Your task to perform on an android device: Open calendar and show me the second week of next month Image 0: 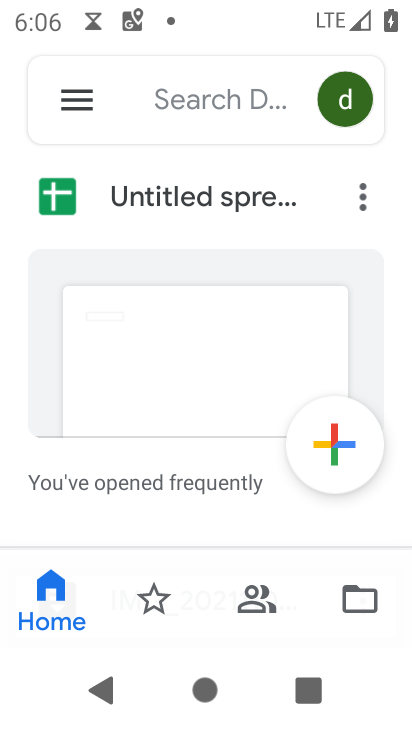
Step 0: press home button
Your task to perform on an android device: Open calendar and show me the second week of next month Image 1: 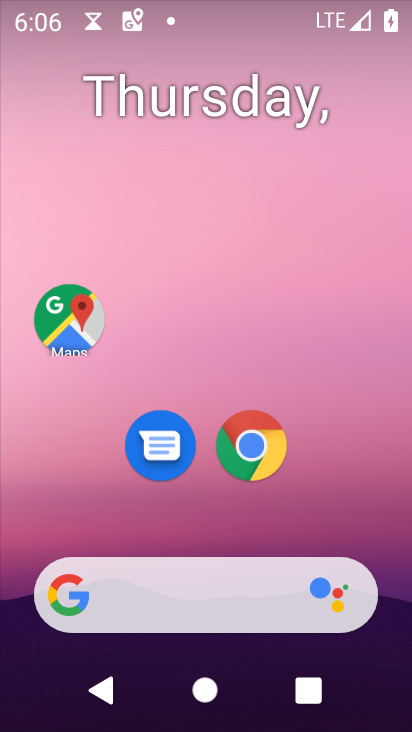
Step 1: drag from (229, 515) to (260, 88)
Your task to perform on an android device: Open calendar and show me the second week of next month Image 2: 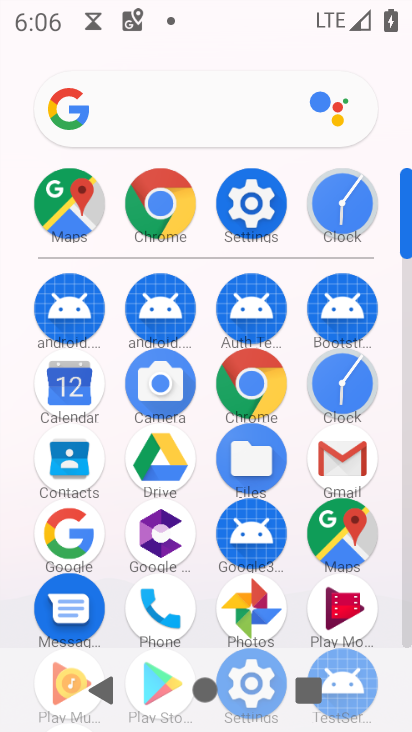
Step 2: click (63, 379)
Your task to perform on an android device: Open calendar and show me the second week of next month Image 3: 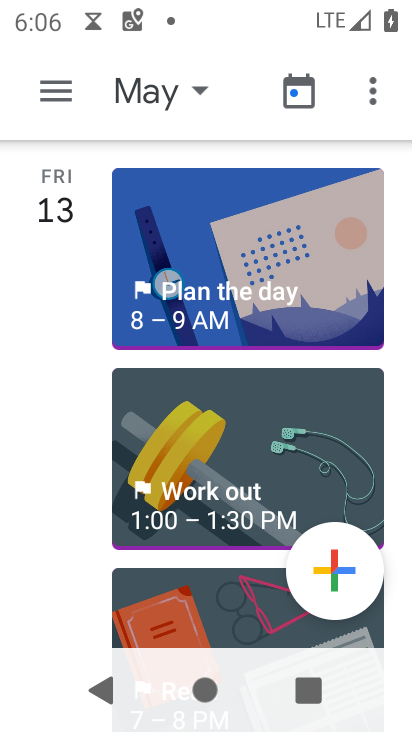
Step 3: click (176, 101)
Your task to perform on an android device: Open calendar and show me the second week of next month Image 4: 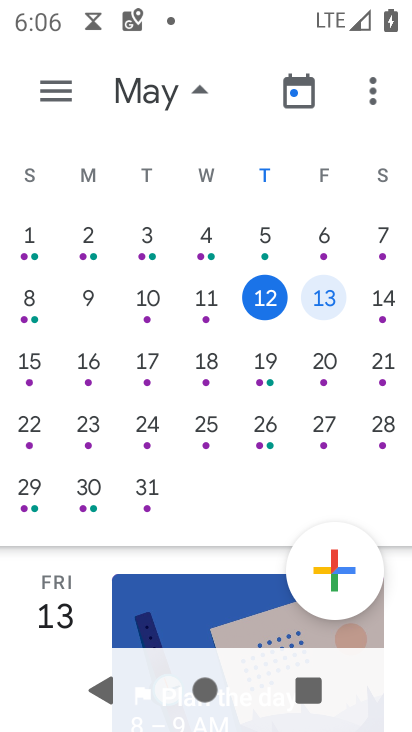
Step 4: drag from (381, 281) to (7, 285)
Your task to perform on an android device: Open calendar and show me the second week of next month Image 5: 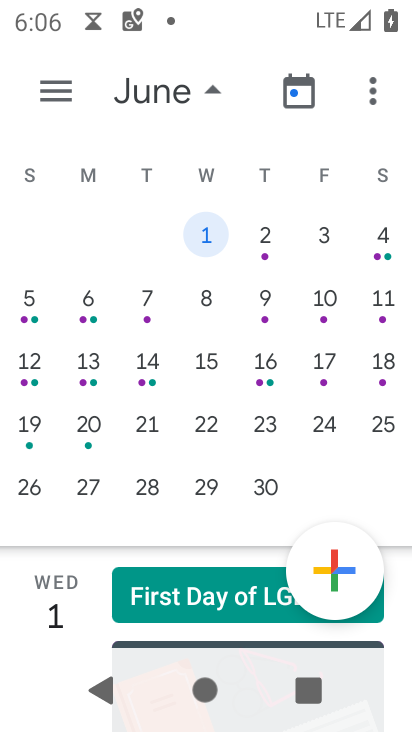
Step 5: click (322, 294)
Your task to perform on an android device: Open calendar and show me the second week of next month Image 6: 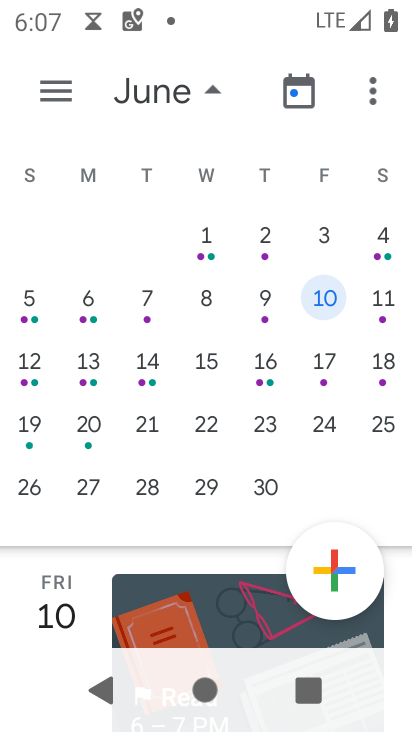
Step 6: task complete